Your task to perform on an android device: Go to CNN.com Image 0: 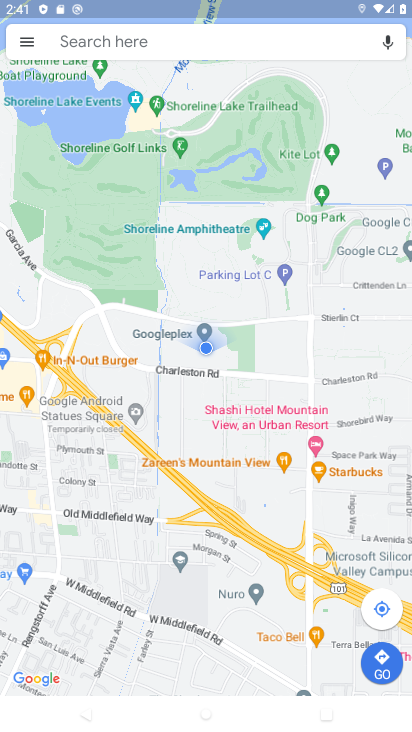
Step 0: press home button
Your task to perform on an android device: Go to CNN.com Image 1: 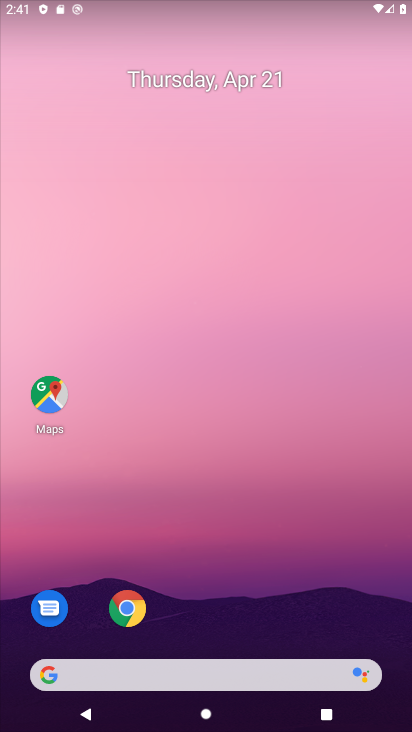
Step 1: click (122, 605)
Your task to perform on an android device: Go to CNN.com Image 2: 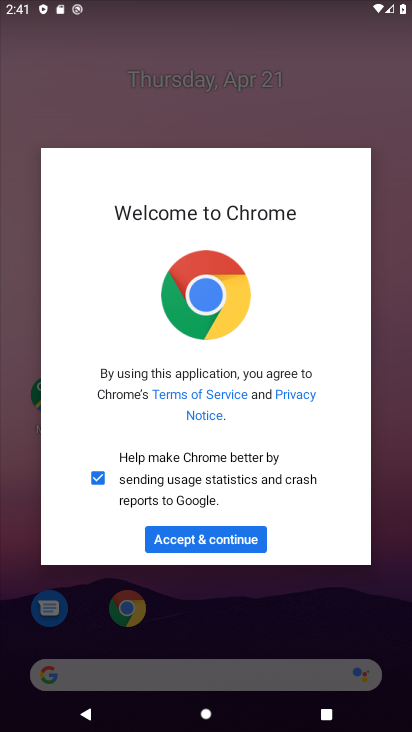
Step 2: click (182, 539)
Your task to perform on an android device: Go to CNN.com Image 3: 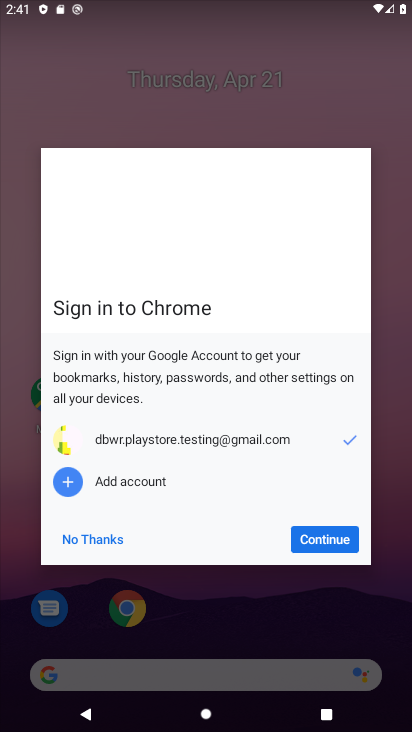
Step 3: click (318, 540)
Your task to perform on an android device: Go to CNN.com Image 4: 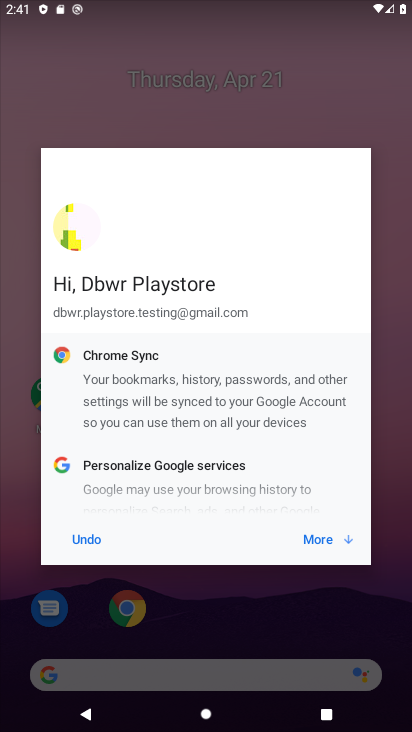
Step 4: click (318, 540)
Your task to perform on an android device: Go to CNN.com Image 5: 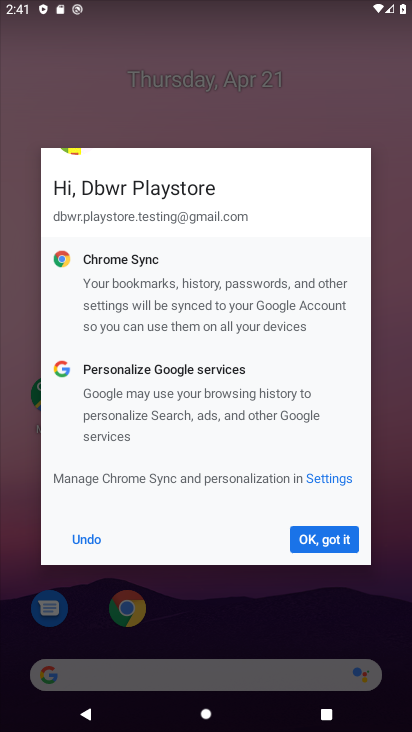
Step 5: click (319, 540)
Your task to perform on an android device: Go to CNN.com Image 6: 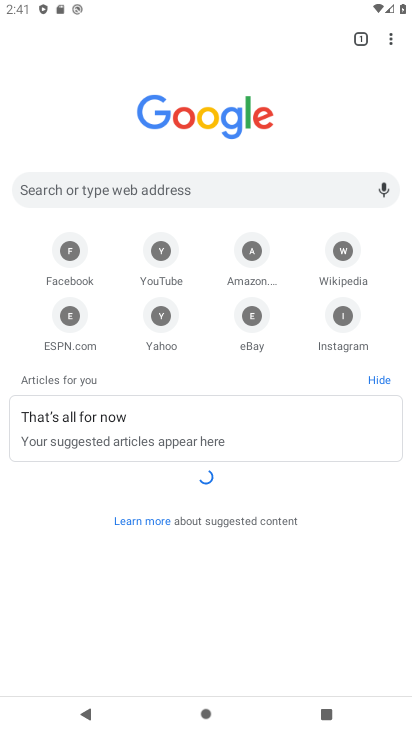
Step 6: click (177, 183)
Your task to perform on an android device: Go to CNN.com Image 7: 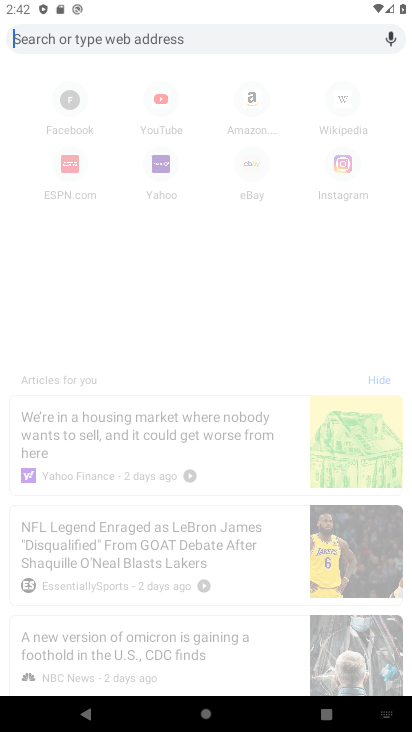
Step 7: type "CNN.com"
Your task to perform on an android device: Go to CNN.com Image 8: 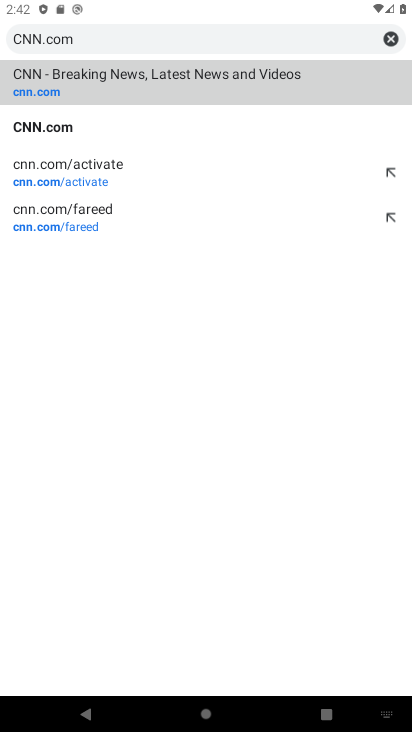
Step 8: click (109, 72)
Your task to perform on an android device: Go to CNN.com Image 9: 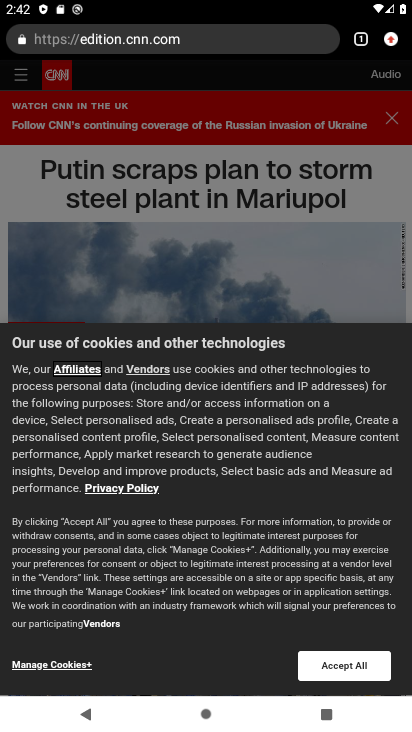
Step 9: task complete